Your task to perform on an android device: What is the capital of France? Image 0: 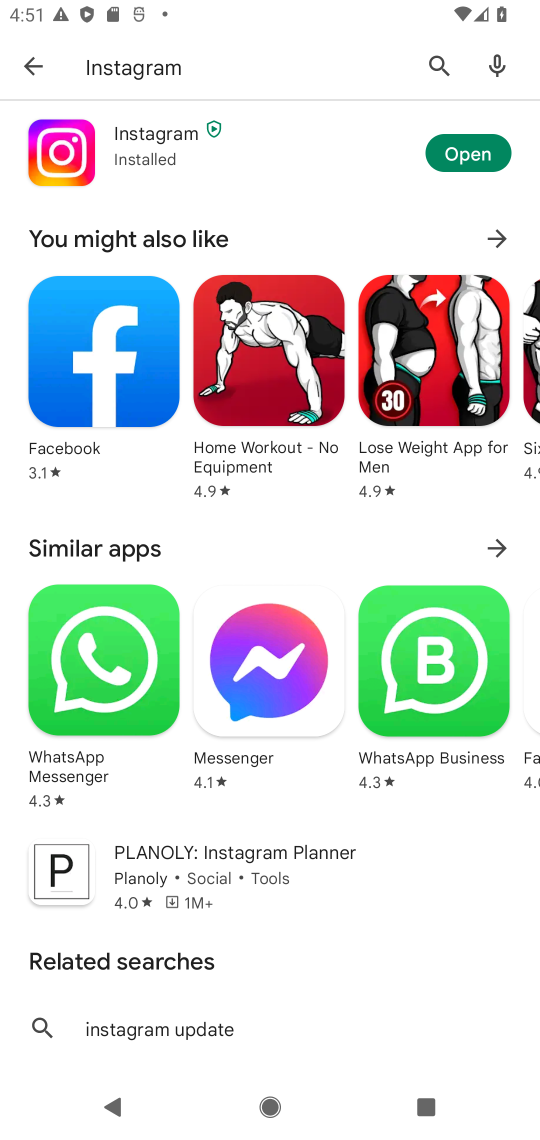
Step 0: press home button
Your task to perform on an android device: What is the capital of France? Image 1: 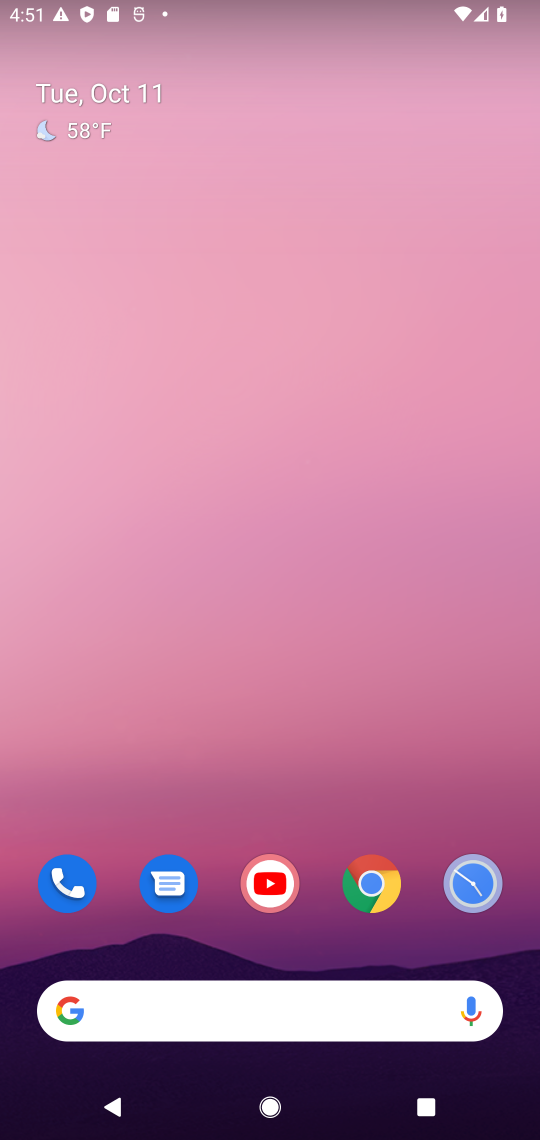
Step 1: drag from (311, 946) to (376, 27)
Your task to perform on an android device: What is the capital of France? Image 2: 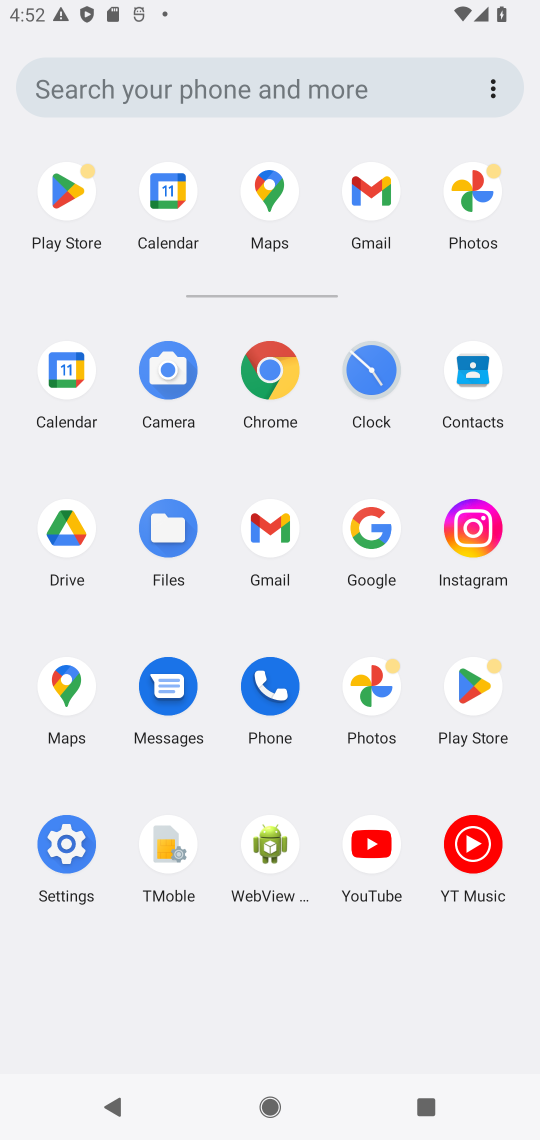
Step 2: click (271, 375)
Your task to perform on an android device: What is the capital of France? Image 3: 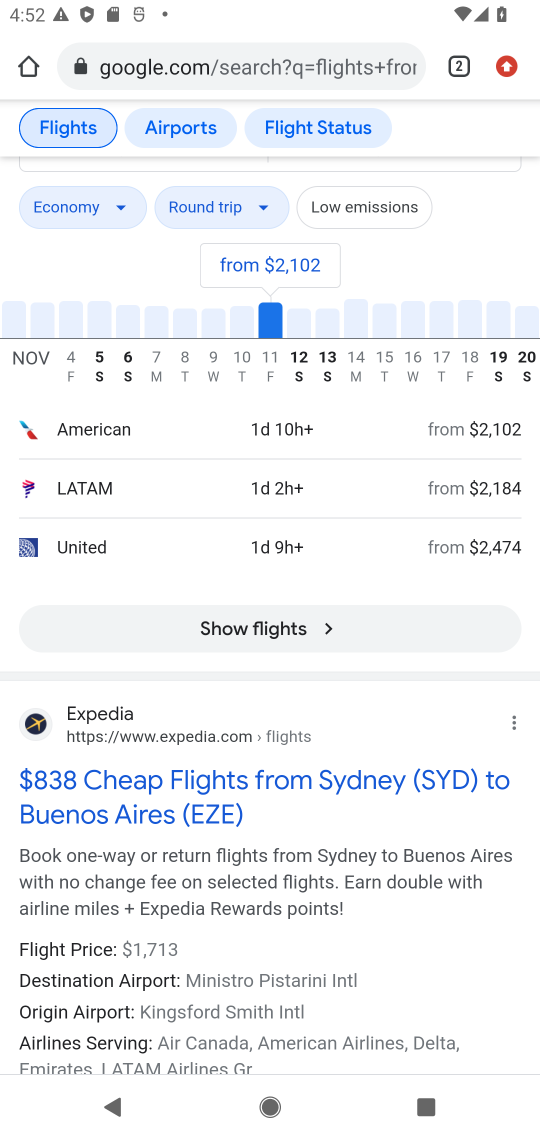
Step 3: click (296, 48)
Your task to perform on an android device: What is the capital of France? Image 4: 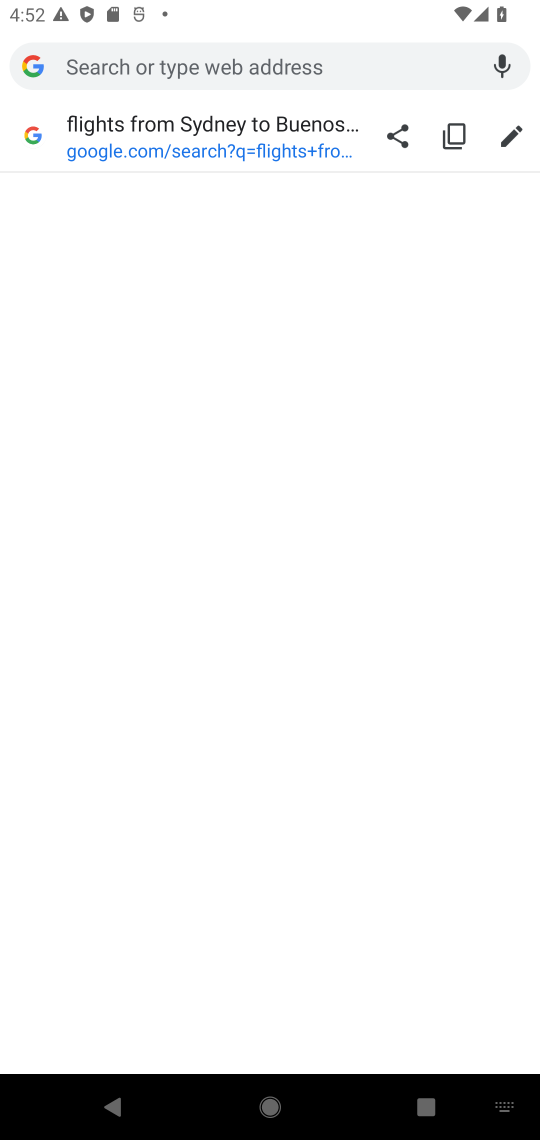
Step 4: type "What is the capital of France?"
Your task to perform on an android device: What is the capital of France? Image 5: 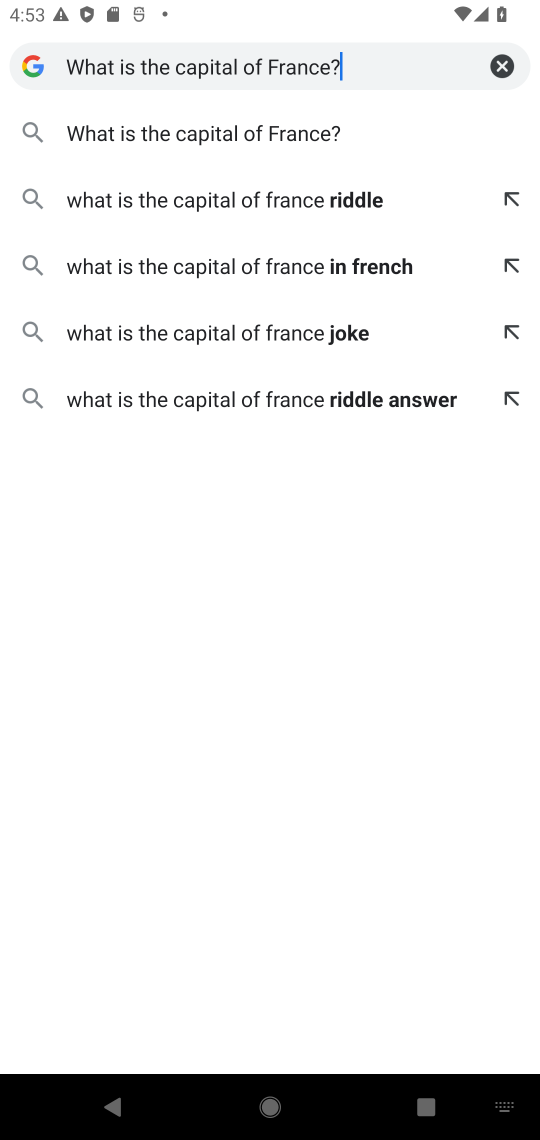
Step 5: press enter
Your task to perform on an android device: What is the capital of France? Image 6: 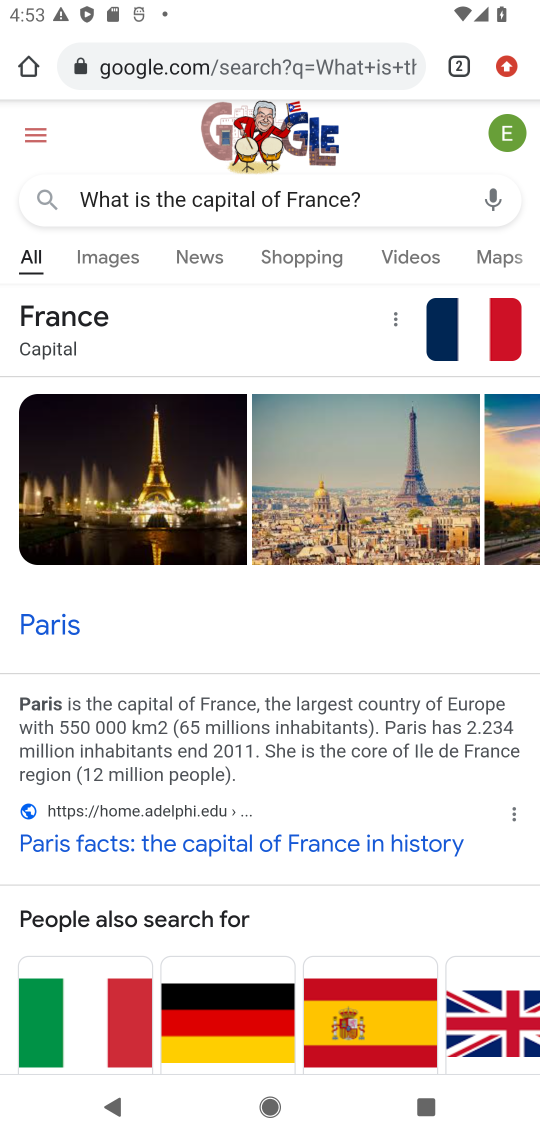
Step 6: task complete